Your task to perform on an android device: check out phone information Image 0: 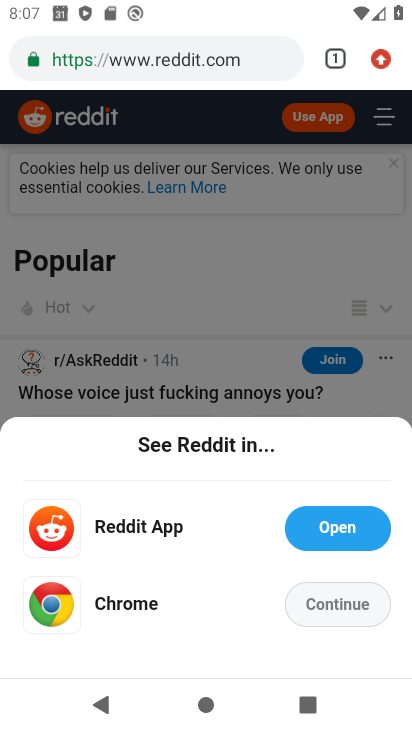
Step 0: press home button
Your task to perform on an android device: check out phone information Image 1: 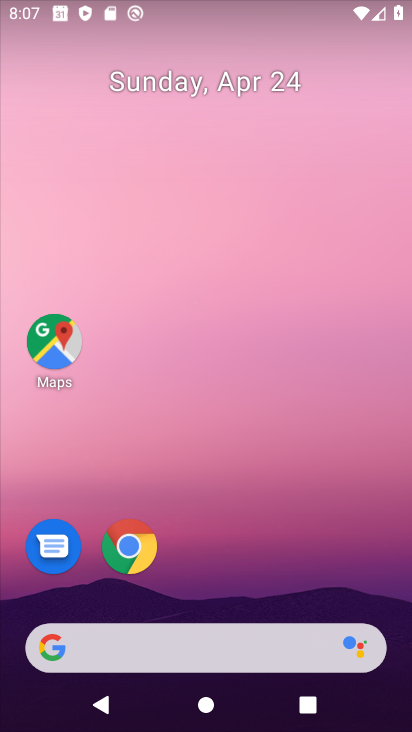
Step 1: drag from (212, 553) to (169, 111)
Your task to perform on an android device: check out phone information Image 2: 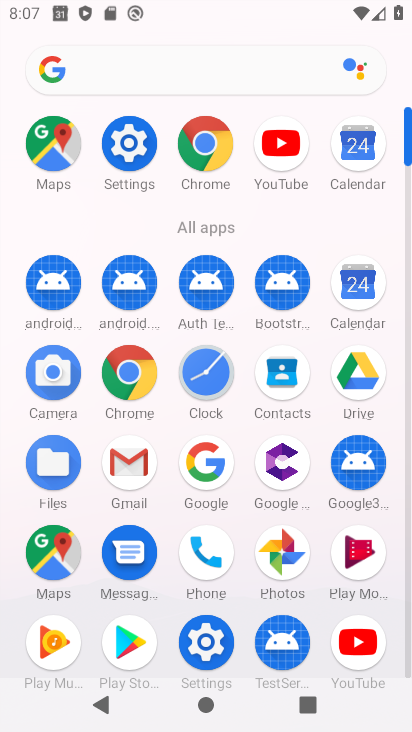
Step 2: click (128, 160)
Your task to perform on an android device: check out phone information Image 3: 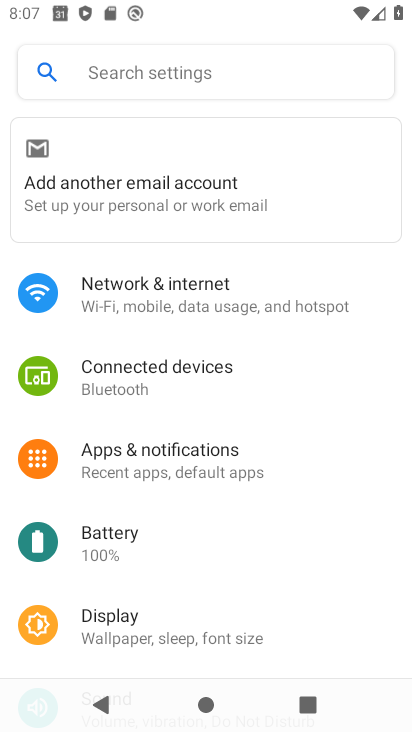
Step 3: drag from (209, 533) to (190, 13)
Your task to perform on an android device: check out phone information Image 4: 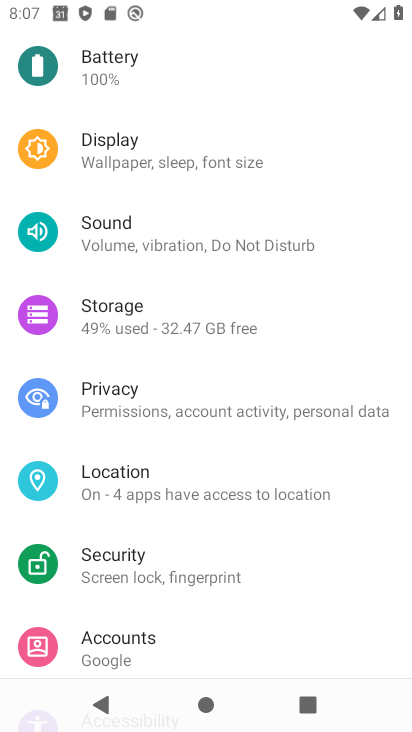
Step 4: drag from (230, 618) to (255, 300)
Your task to perform on an android device: check out phone information Image 5: 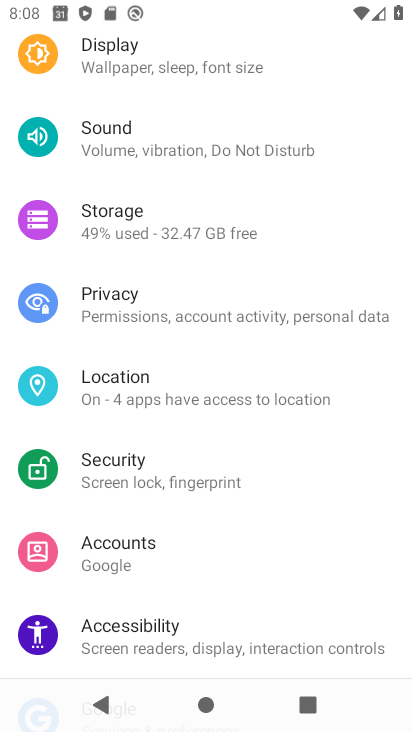
Step 5: drag from (235, 545) to (251, 355)
Your task to perform on an android device: check out phone information Image 6: 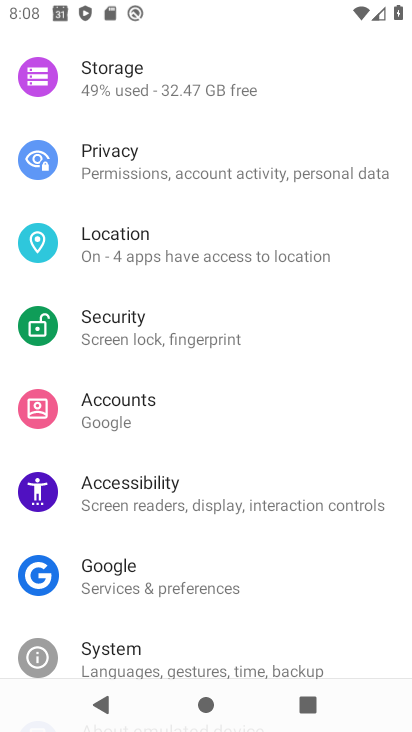
Step 6: drag from (134, 622) to (92, 217)
Your task to perform on an android device: check out phone information Image 7: 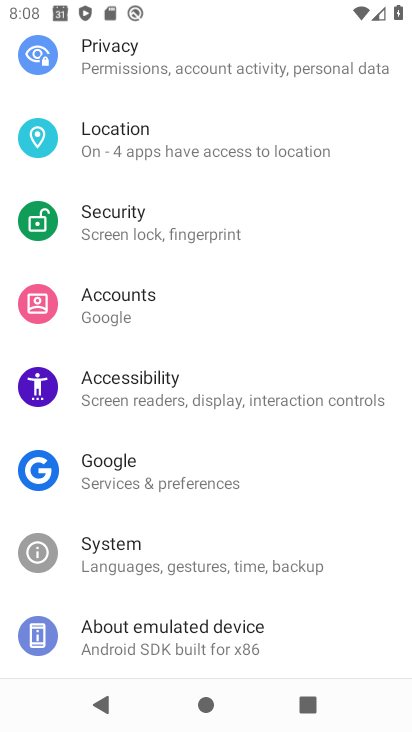
Step 7: click (146, 665)
Your task to perform on an android device: check out phone information Image 8: 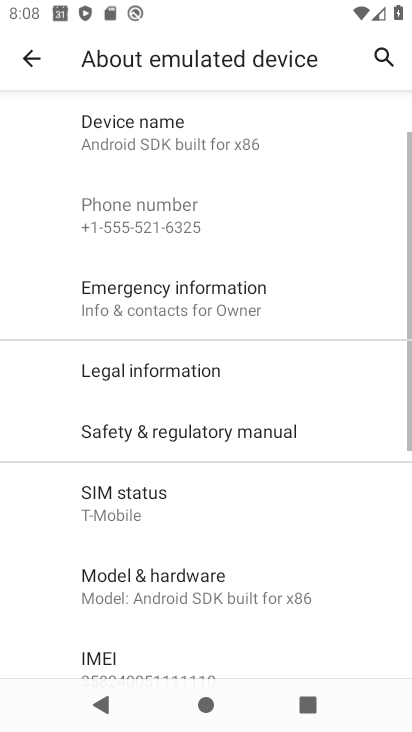
Step 8: click (146, 647)
Your task to perform on an android device: check out phone information Image 9: 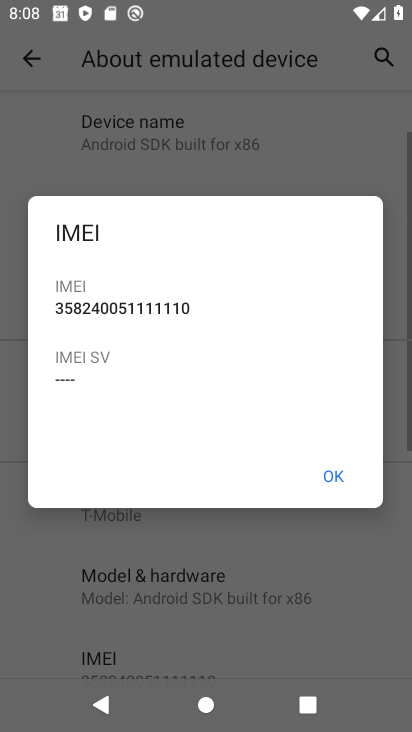
Step 9: task complete